Your task to perform on an android device: Open Reddit.com Image 0: 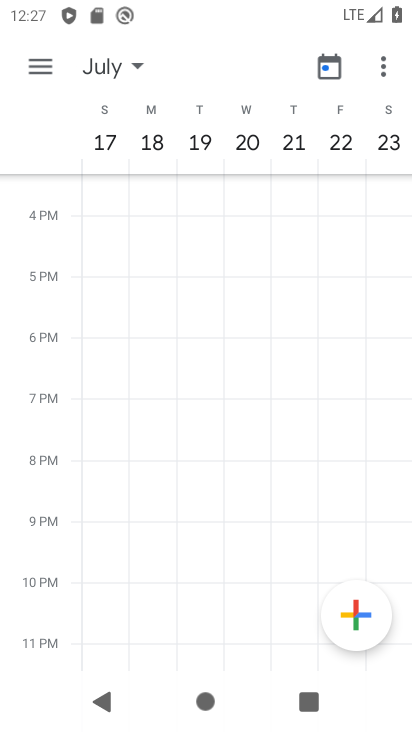
Step 0: press home button
Your task to perform on an android device: Open Reddit.com Image 1: 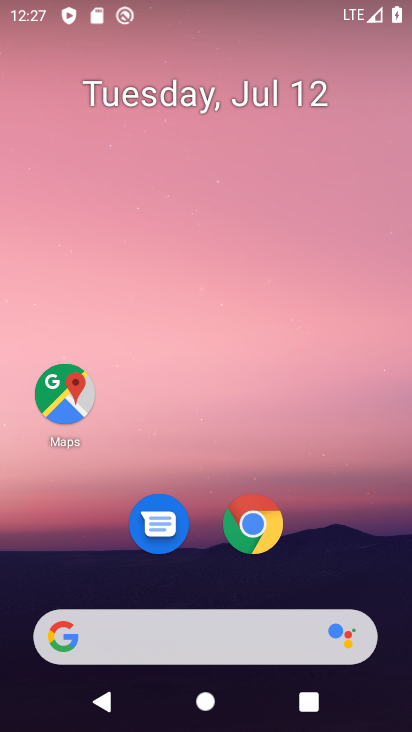
Step 1: click (282, 627)
Your task to perform on an android device: Open Reddit.com Image 2: 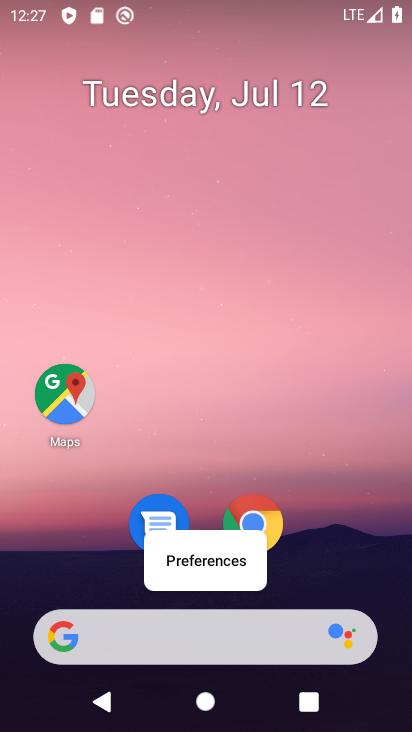
Step 2: click (234, 650)
Your task to perform on an android device: Open Reddit.com Image 3: 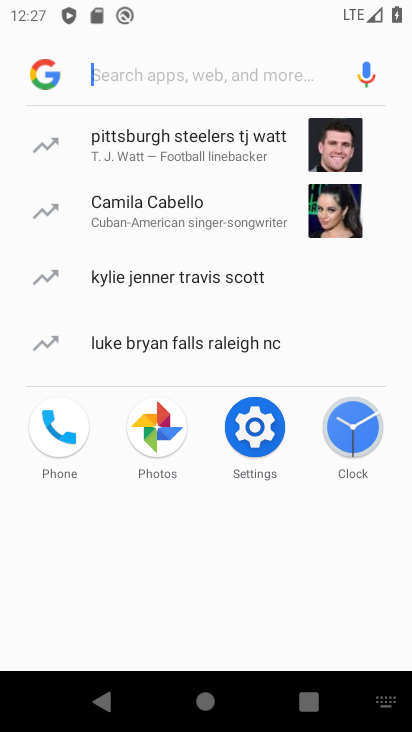
Step 3: type "reddit.com"
Your task to perform on an android device: Open Reddit.com Image 4: 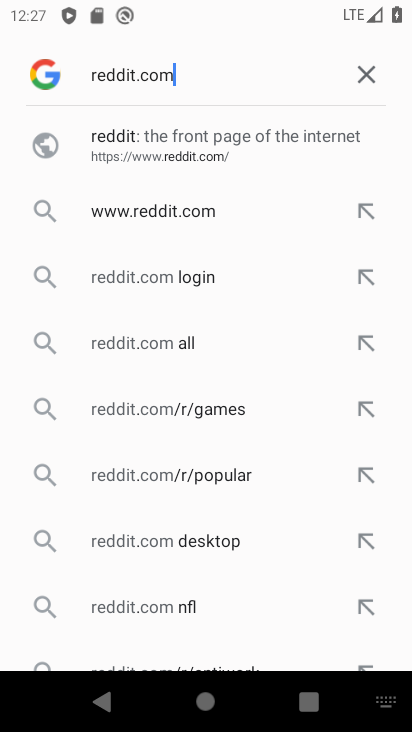
Step 4: click (129, 152)
Your task to perform on an android device: Open Reddit.com Image 5: 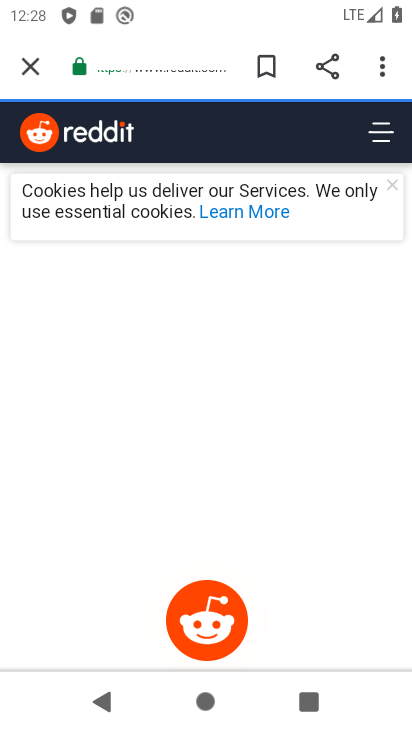
Step 5: task complete